Your task to perform on an android device: Search for seafood restaurants on Google Maps Image 0: 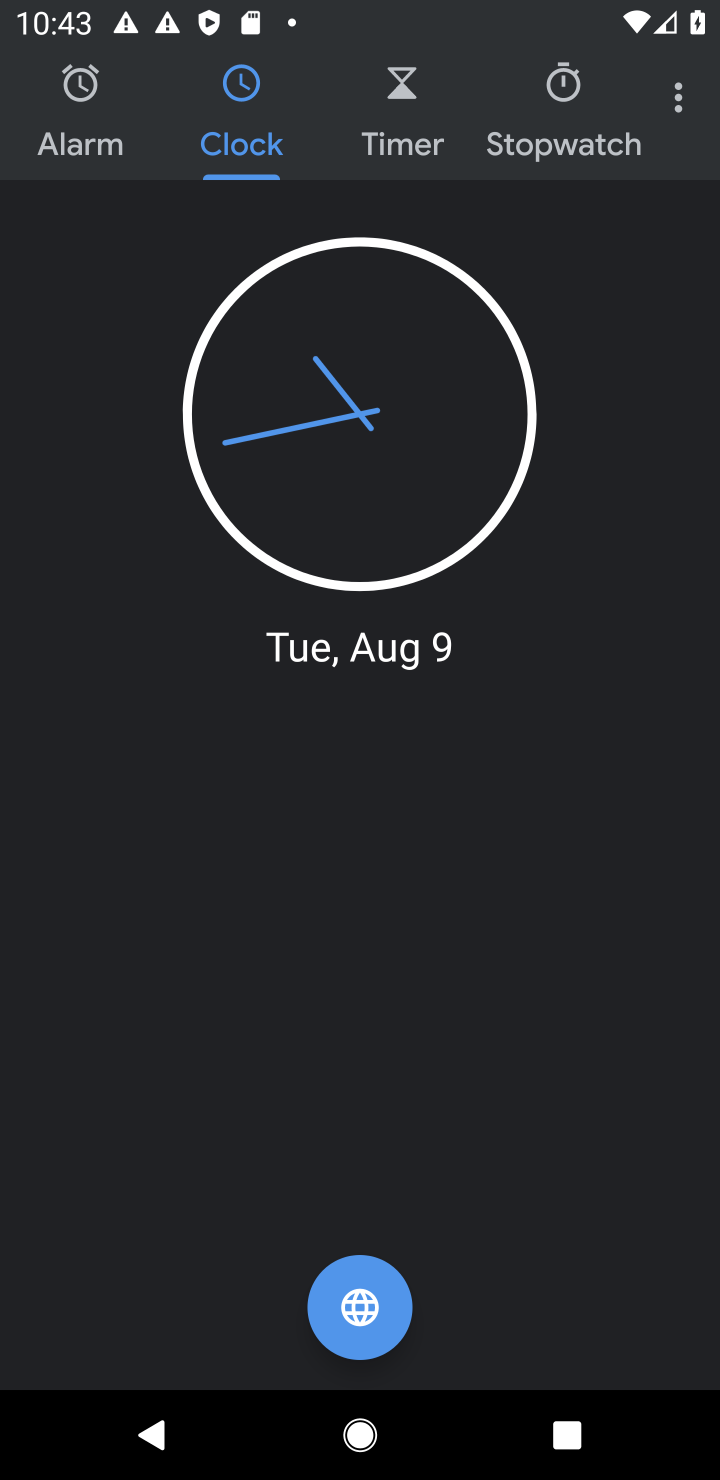
Step 0: press home button
Your task to perform on an android device: Search for seafood restaurants on Google Maps Image 1: 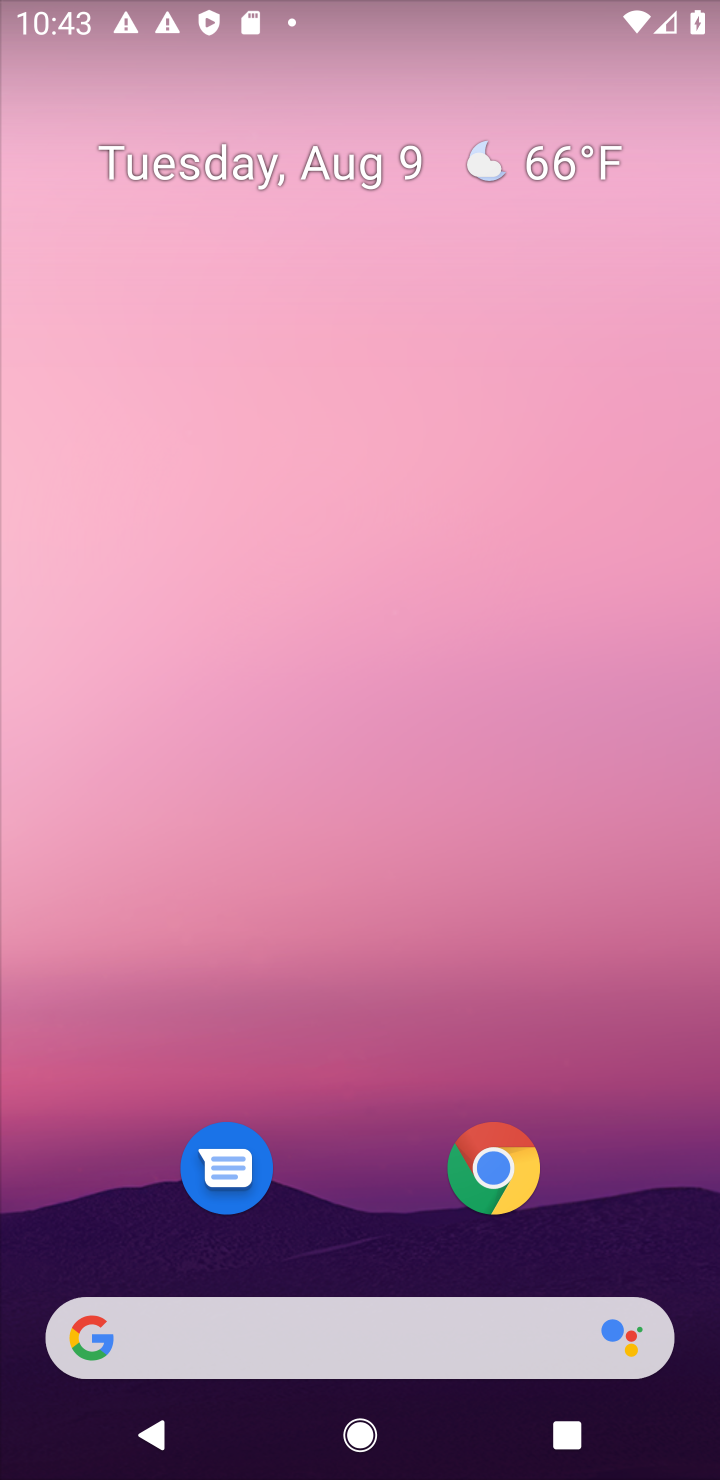
Step 1: drag from (357, 1173) to (355, 60)
Your task to perform on an android device: Search for seafood restaurants on Google Maps Image 2: 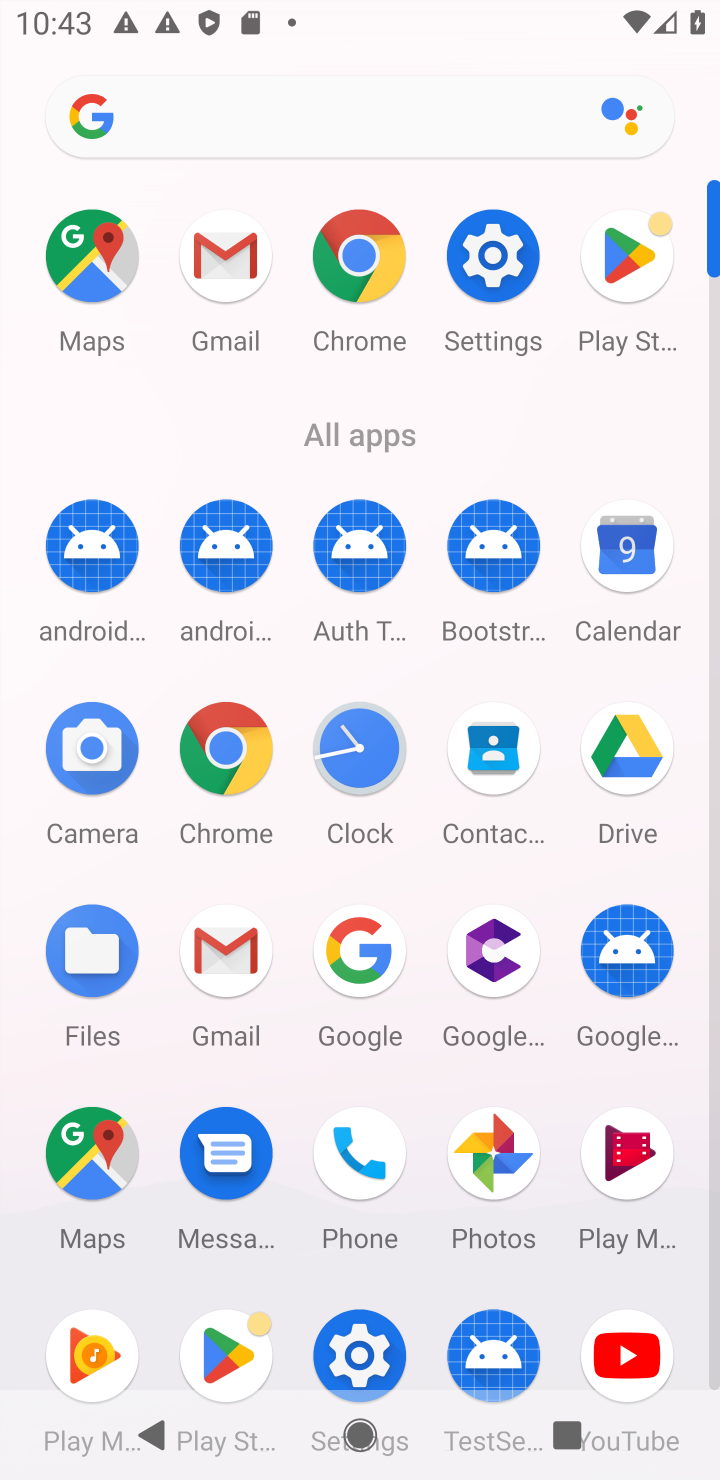
Step 2: click (90, 1153)
Your task to perform on an android device: Search for seafood restaurants on Google Maps Image 3: 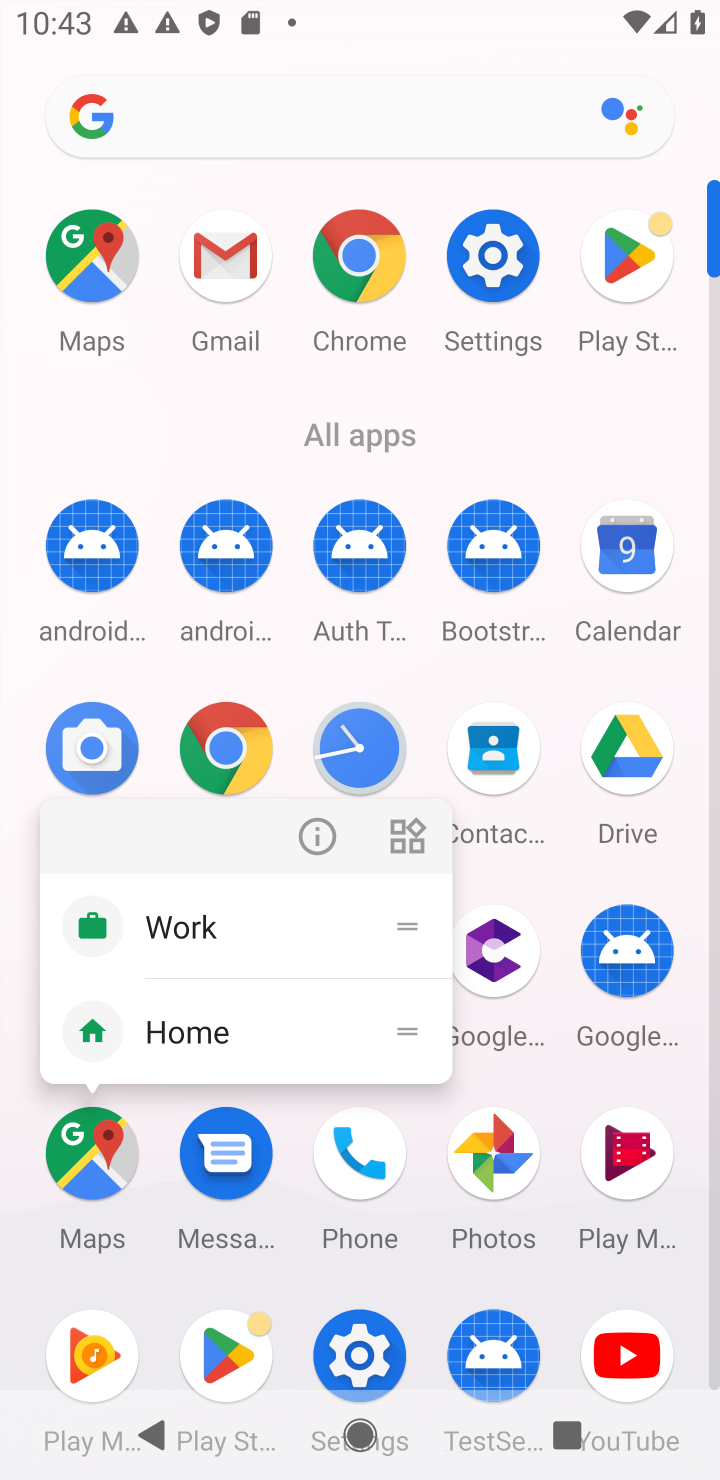
Step 3: click (81, 1157)
Your task to perform on an android device: Search for seafood restaurants on Google Maps Image 4: 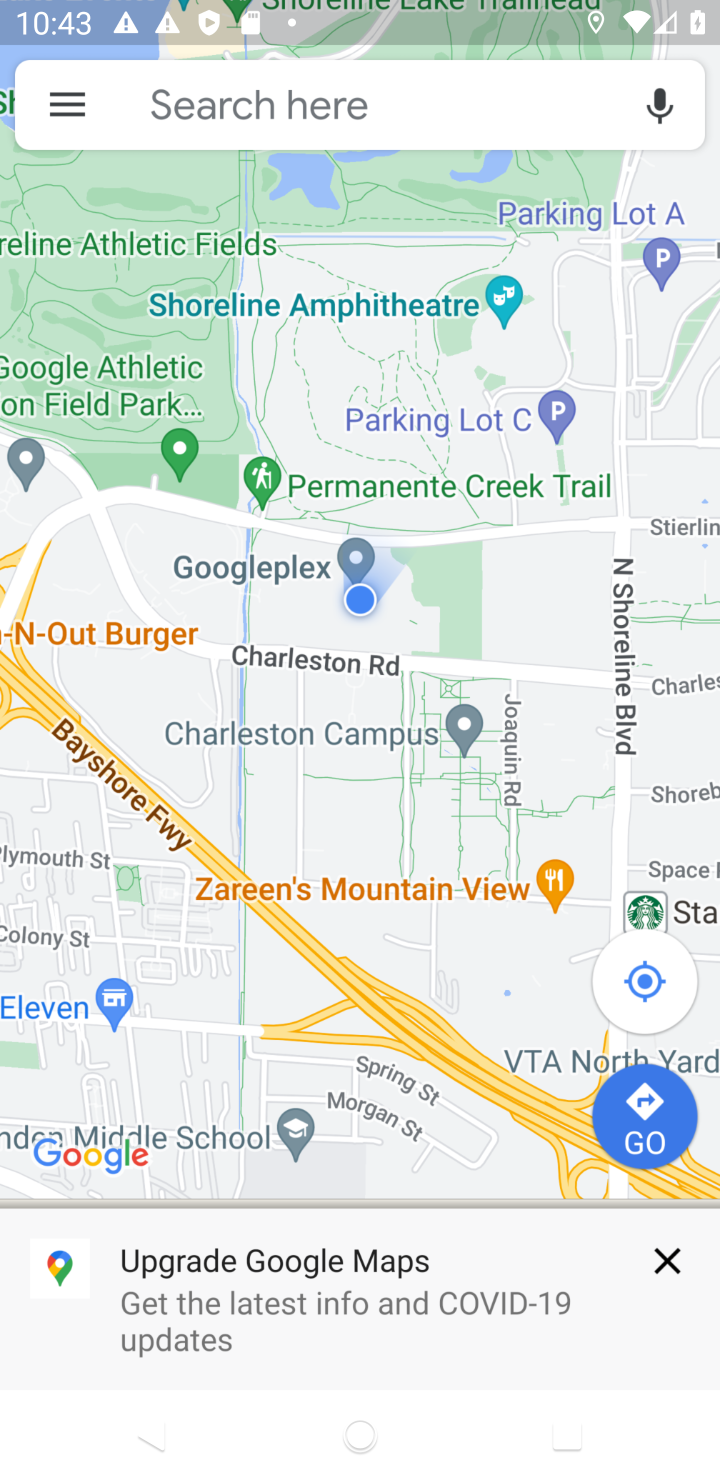
Step 4: click (264, 119)
Your task to perform on an android device: Search for seafood restaurants on Google Maps Image 5: 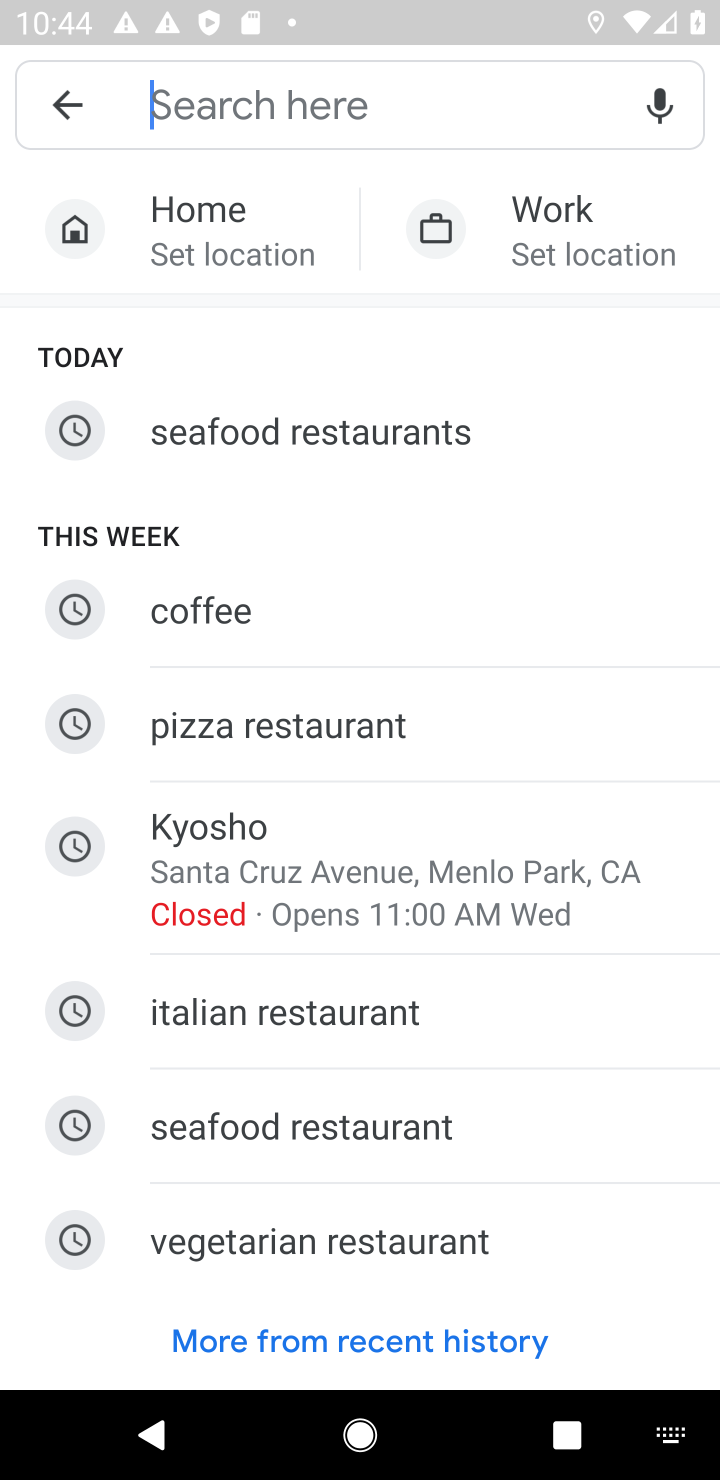
Step 5: type "seafood restaurants "
Your task to perform on an android device: Search for seafood restaurants on Google Maps Image 6: 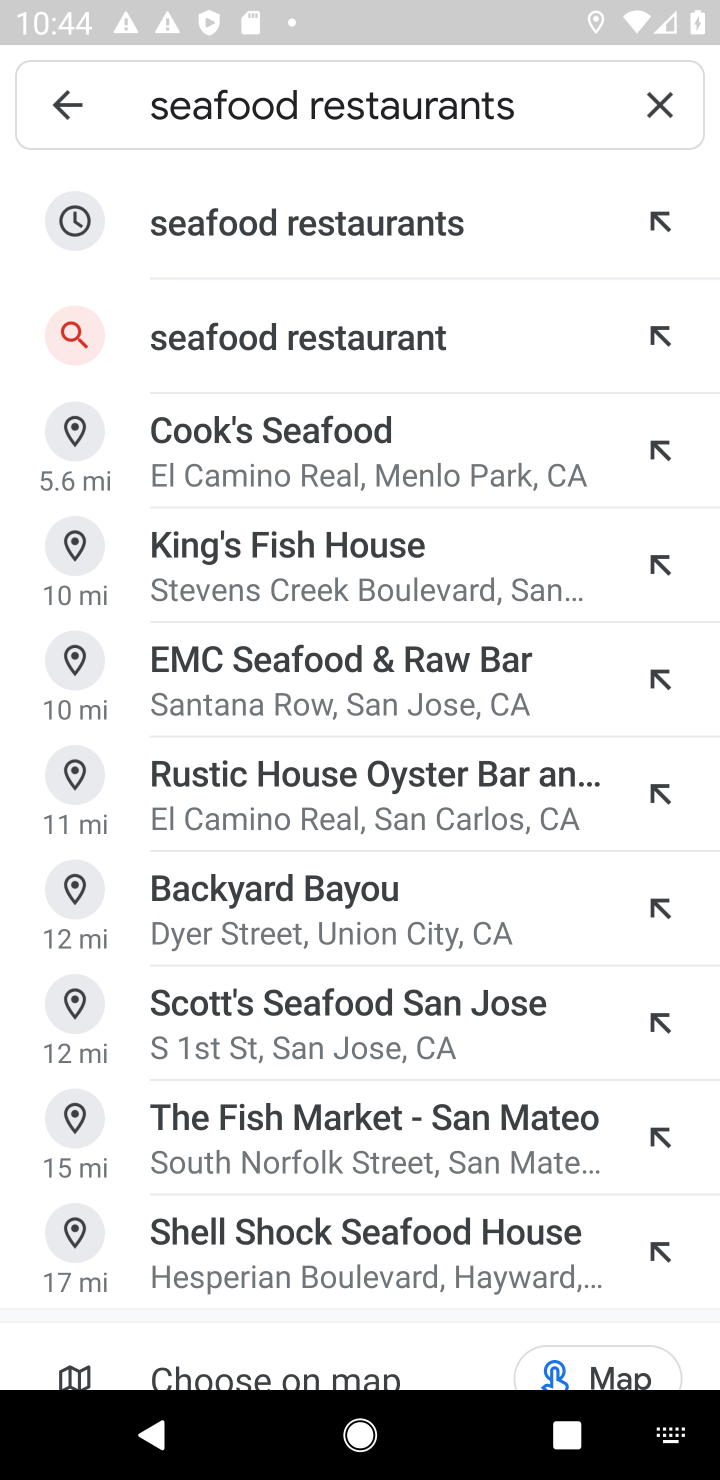
Step 6: click (261, 237)
Your task to perform on an android device: Search for seafood restaurants on Google Maps Image 7: 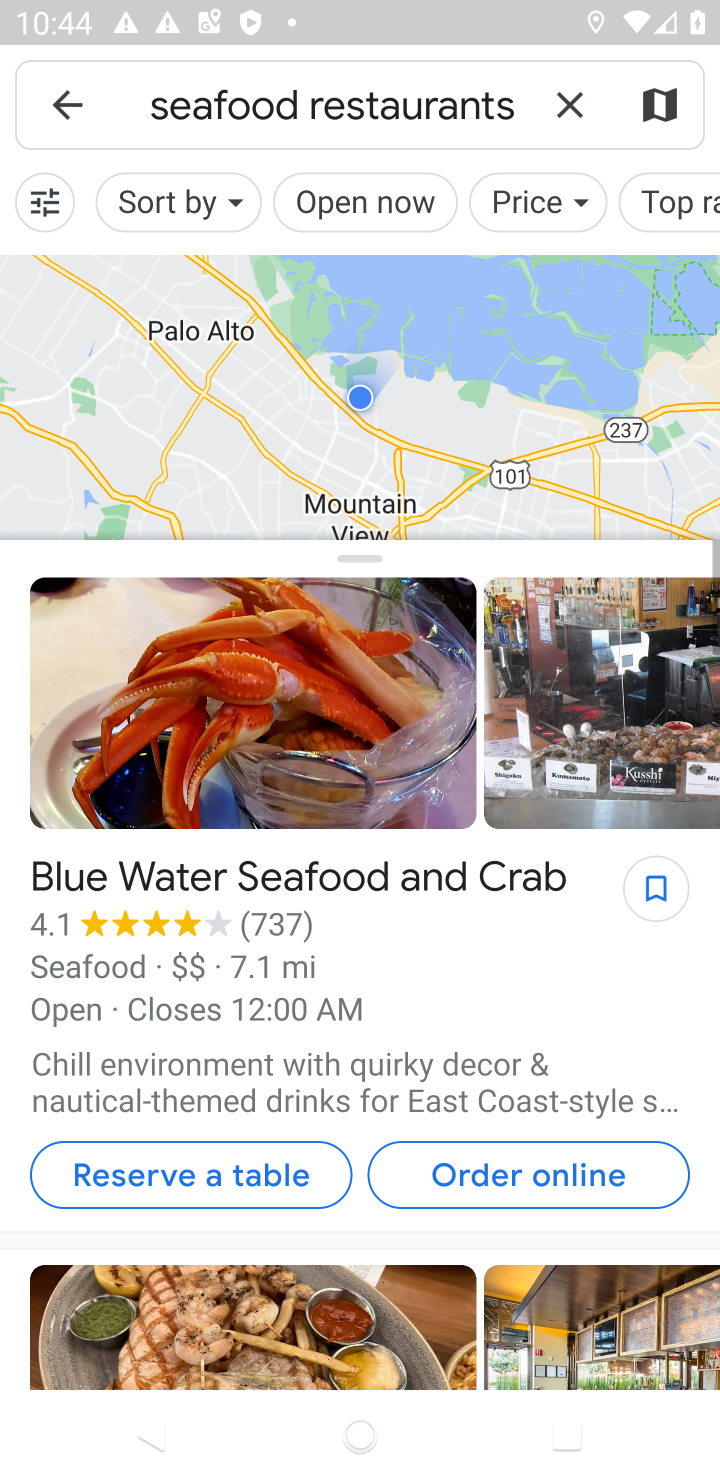
Step 7: task complete